Your task to perform on an android device: turn off location Image 0: 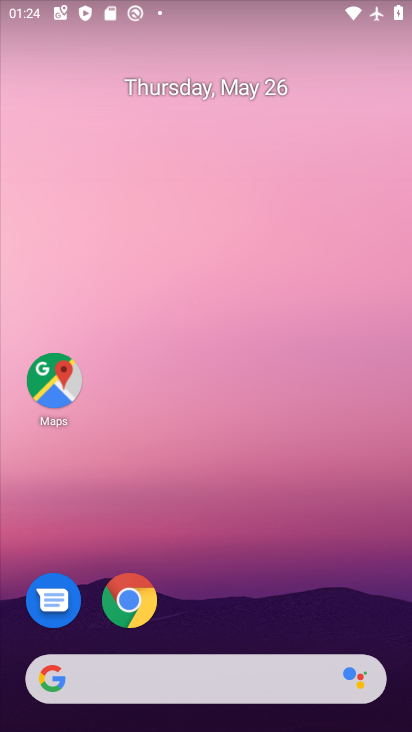
Step 0: drag from (261, 554) to (258, 63)
Your task to perform on an android device: turn off location Image 1: 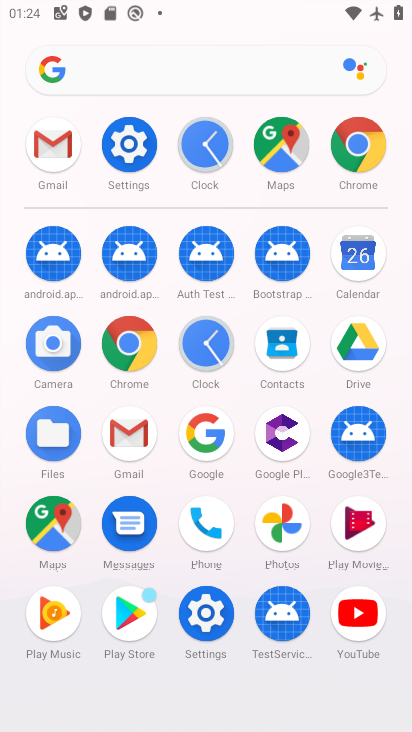
Step 1: click (135, 124)
Your task to perform on an android device: turn off location Image 2: 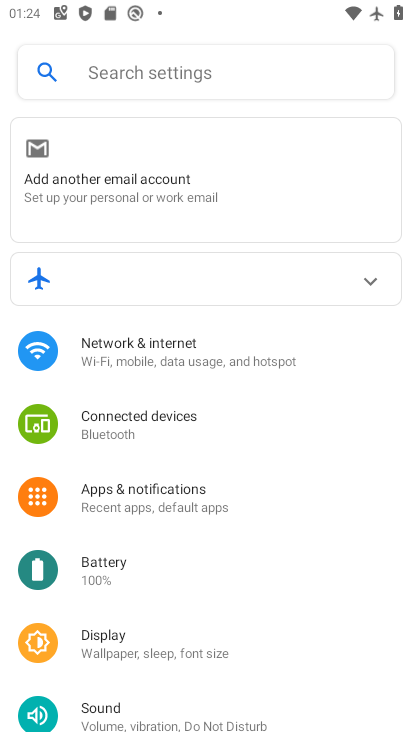
Step 2: drag from (193, 577) to (244, 179)
Your task to perform on an android device: turn off location Image 3: 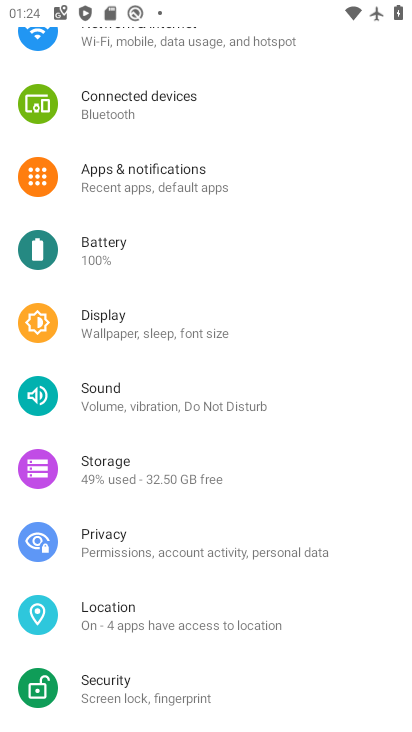
Step 3: click (216, 614)
Your task to perform on an android device: turn off location Image 4: 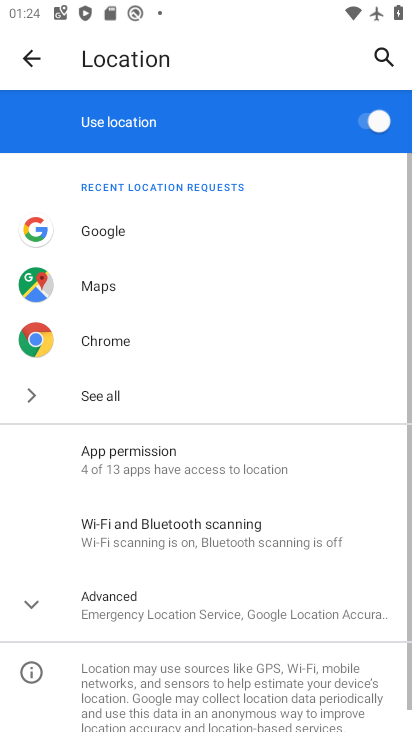
Step 4: click (369, 114)
Your task to perform on an android device: turn off location Image 5: 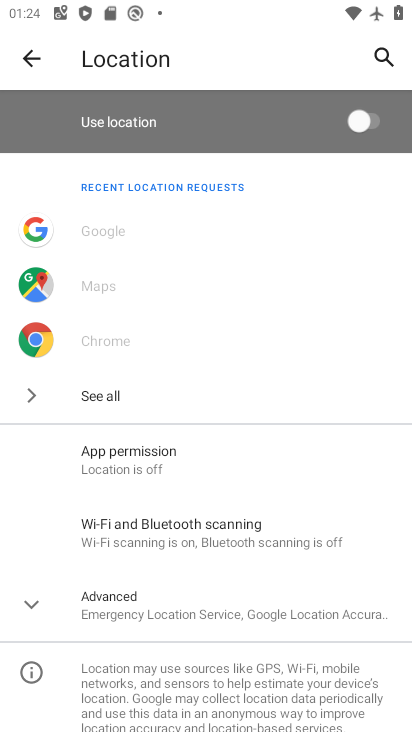
Step 5: task complete